Your task to perform on an android device: Show me the alarms in the clock app Image 0: 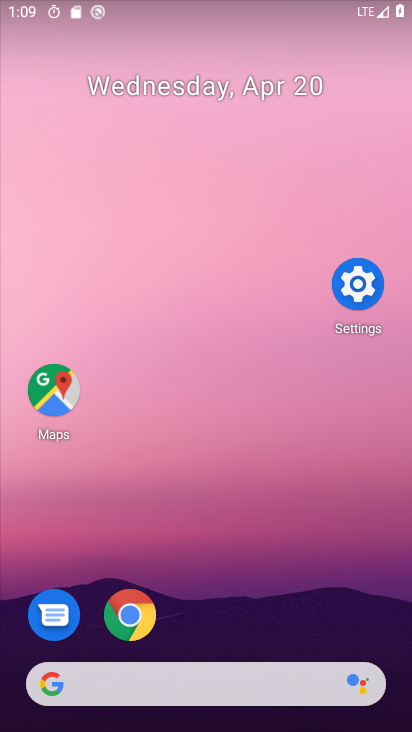
Step 0: drag from (176, 627) to (265, 154)
Your task to perform on an android device: Show me the alarms in the clock app Image 1: 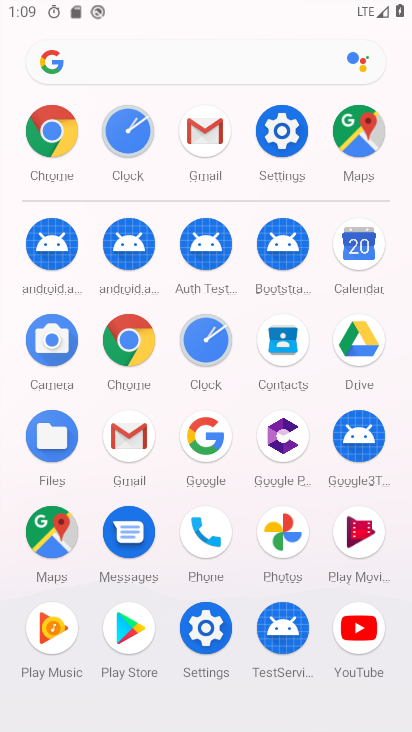
Step 1: click (210, 334)
Your task to perform on an android device: Show me the alarms in the clock app Image 2: 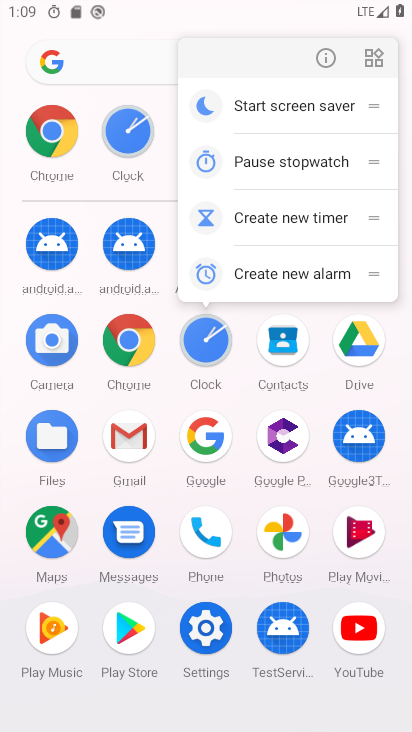
Step 2: click (322, 61)
Your task to perform on an android device: Show me the alarms in the clock app Image 3: 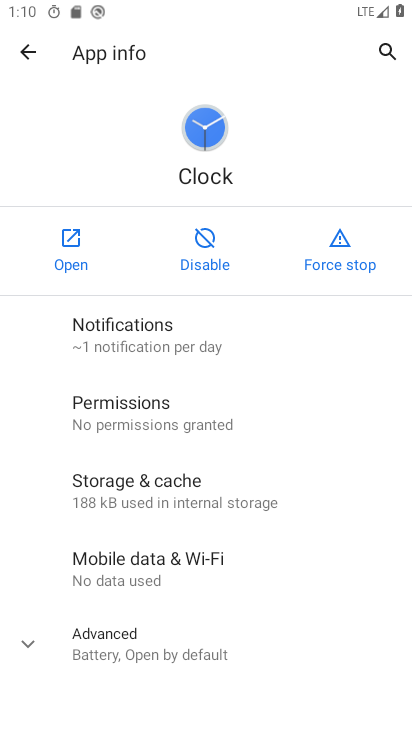
Step 3: click (66, 247)
Your task to perform on an android device: Show me the alarms in the clock app Image 4: 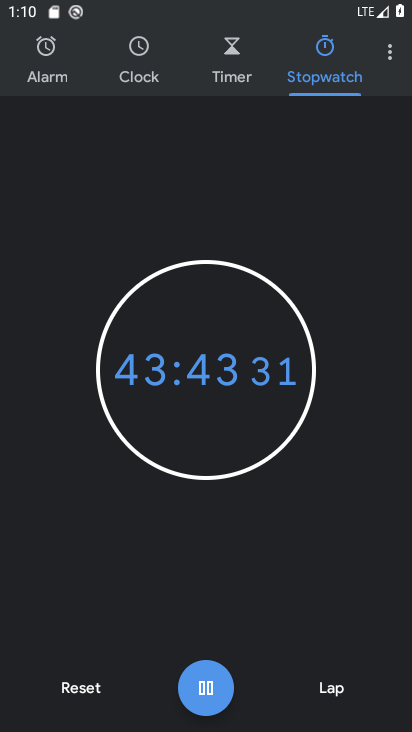
Step 4: click (85, 682)
Your task to perform on an android device: Show me the alarms in the clock app Image 5: 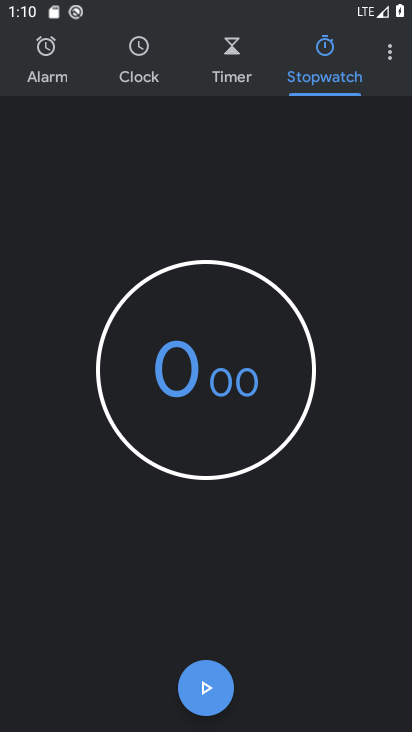
Step 5: click (398, 56)
Your task to perform on an android device: Show me the alarms in the clock app Image 6: 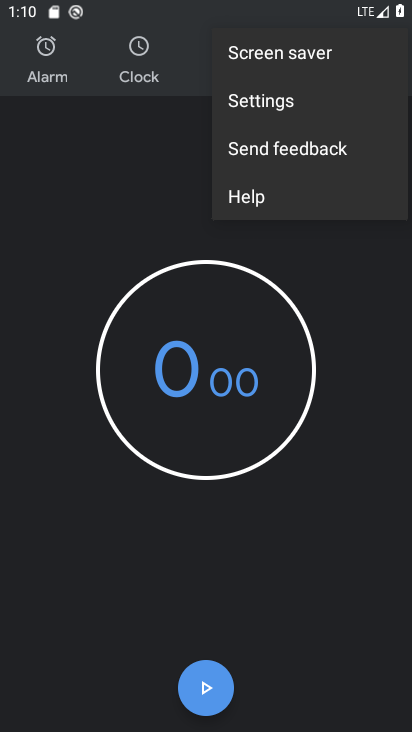
Step 6: click (56, 47)
Your task to perform on an android device: Show me the alarms in the clock app Image 7: 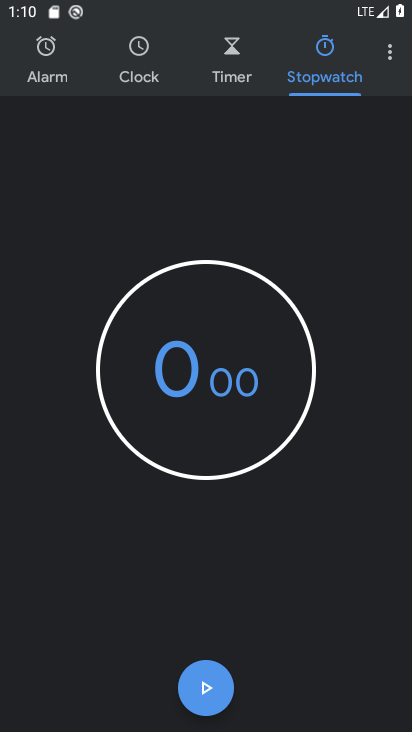
Step 7: click (61, 44)
Your task to perform on an android device: Show me the alarms in the clock app Image 8: 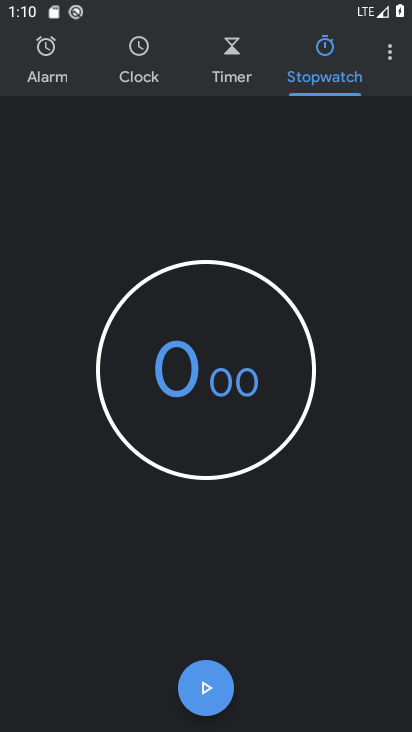
Step 8: click (47, 52)
Your task to perform on an android device: Show me the alarms in the clock app Image 9: 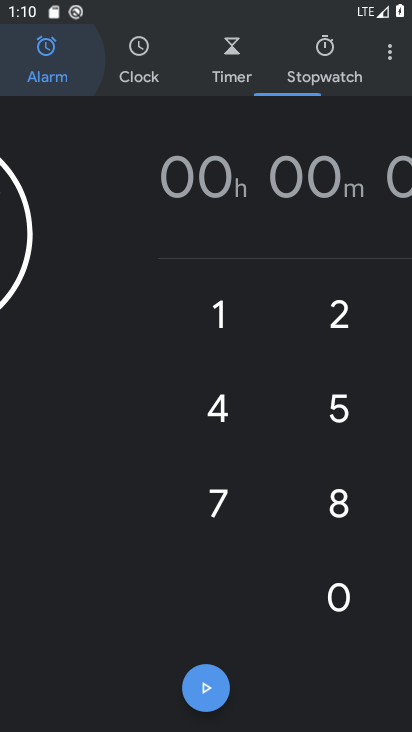
Step 9: task complete